Your task to perform on an android device: turn off translation in the chrome app Image 0: 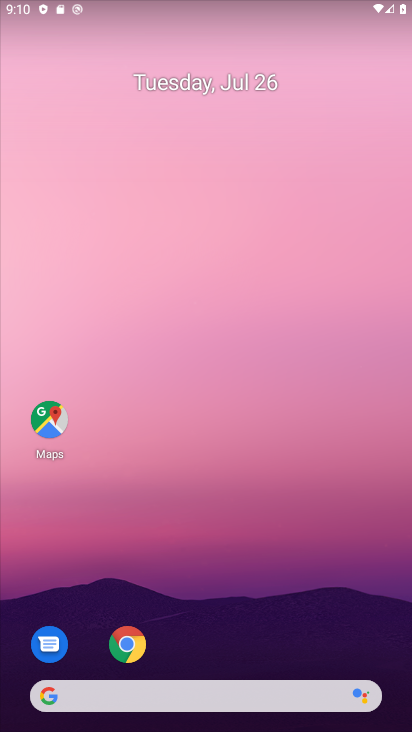
Step 0: drag from (207, 642) to (240, 32)
Your task to perform on an android device: turn off translation in the chrome app Image 1: 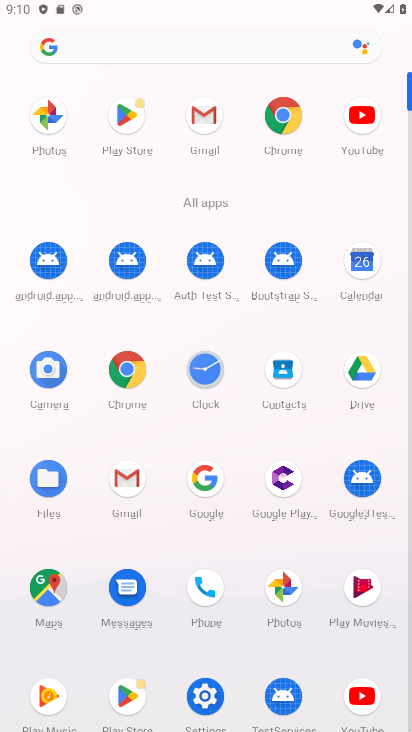
Step 1: click (126, 366)
Your task to perform on an android device: turn off translation in the chrome app Image 2: 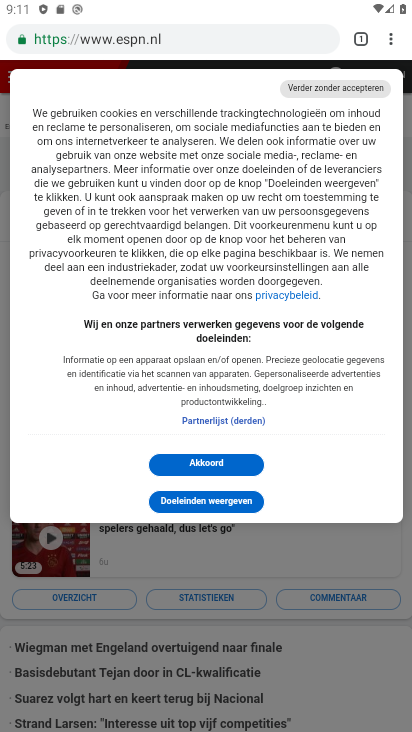
Step 2: click (392, 41)
Your task to perform on an android device: turn off translation in the chrome app Image 3: 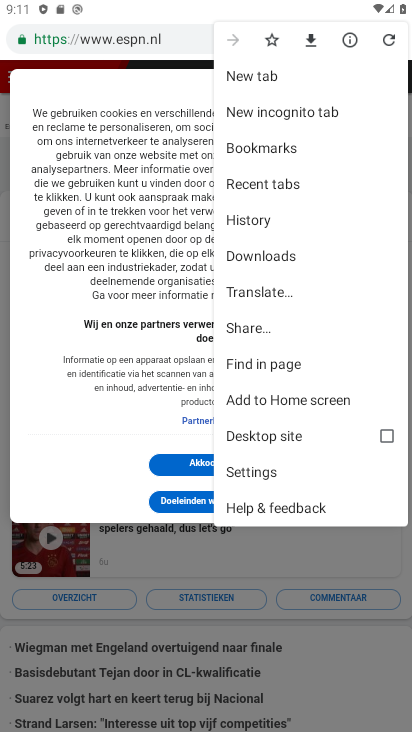
Step 3: click (269, 468)
Your task to perform on an android device: turn off translation in the chrome app Image 4: 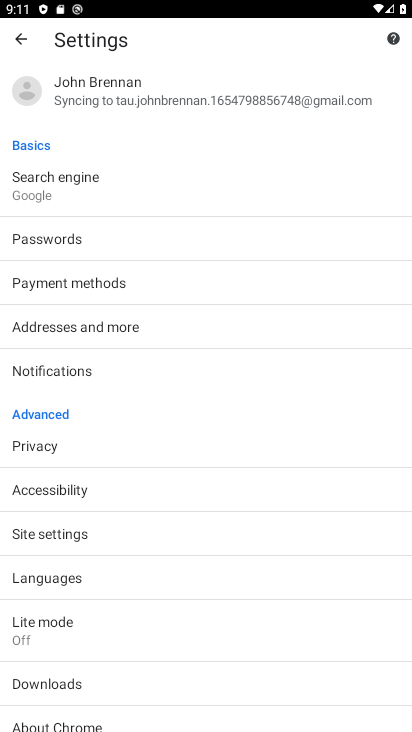
Step 4: click (73, 579)
Your task to perform on an android device: turn off translation in the chrome app Image 5: 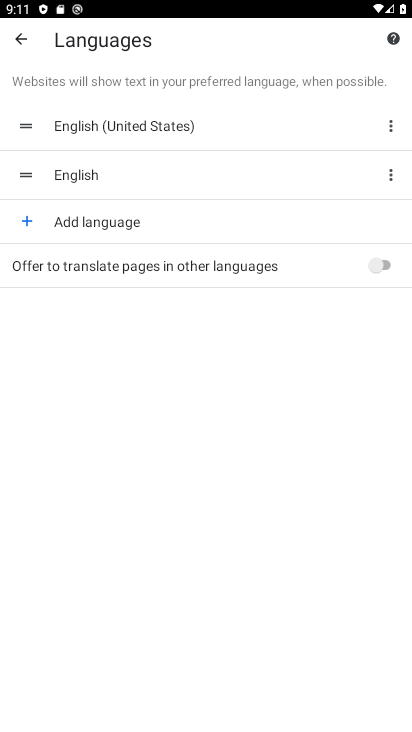
Step 5: task complete